Your task to perform on an android device: toggle priority inbox in the gmail app Image 0: 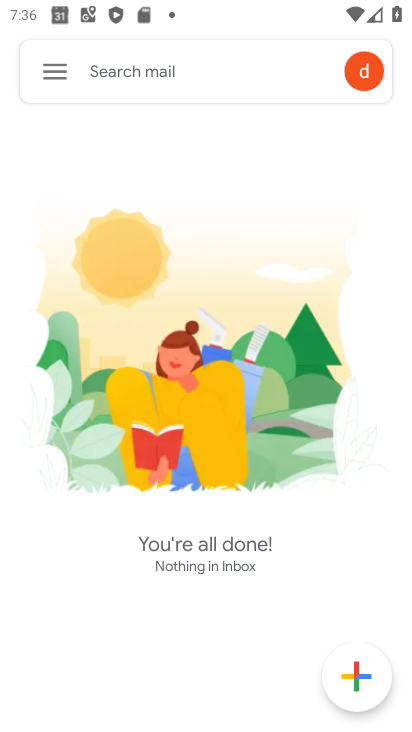
Step 0: click (50, 78)
Your task to perform on an android device: toggle priority inbox in the gmail app Image 1: 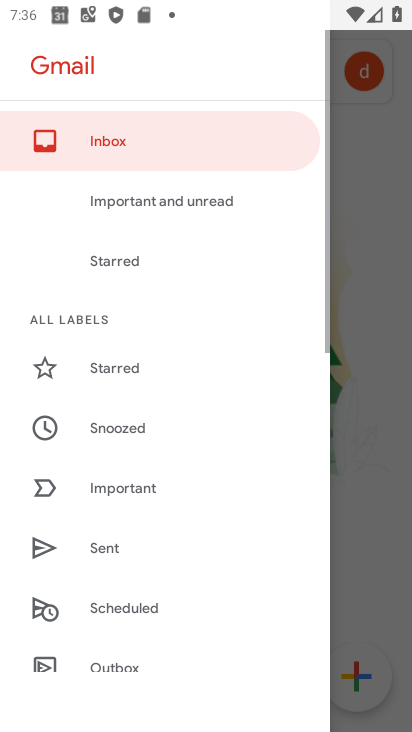
Step 1: drag from (149, 630) to (125, 253)
Your task to perform on an android device: toggle priority inbox in the gmail app Image 2: 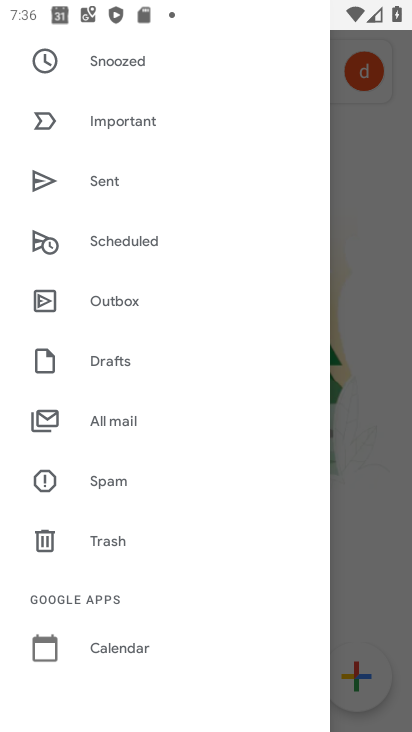
Step 2: drag from (118, 633) to (109, 317)
Your task to perform on an android device: toggle priority inbox in the gmail app Image 3: 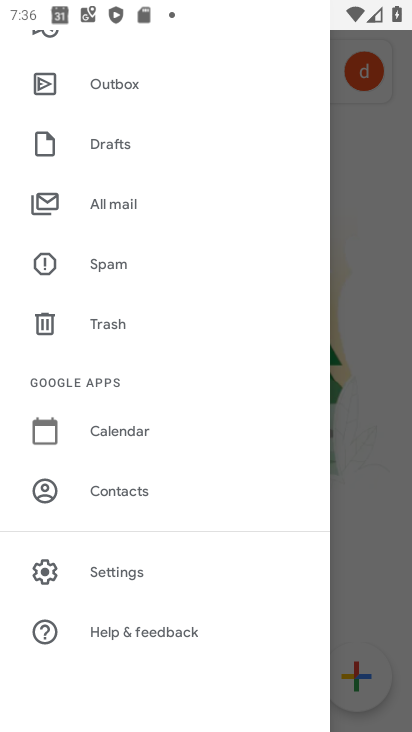
Step 3: click (118, 579)
Your task to perform on an android device: toggle priority inbox in the gmail app Image 4: 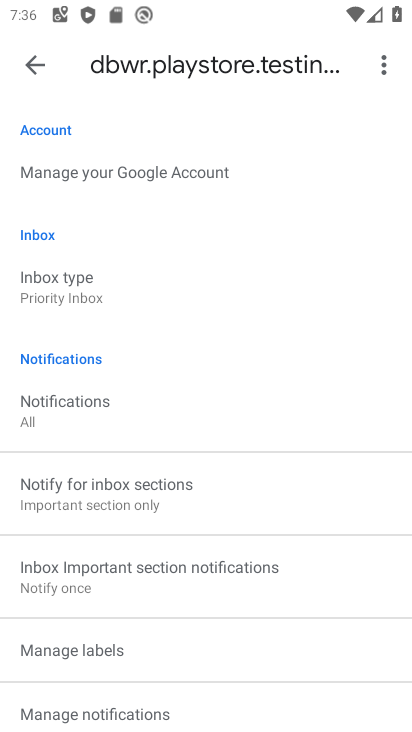
Step 4: click (86, 308)
Your task to perform on an android device: toggle priority inbox in the gmail app Image 5: 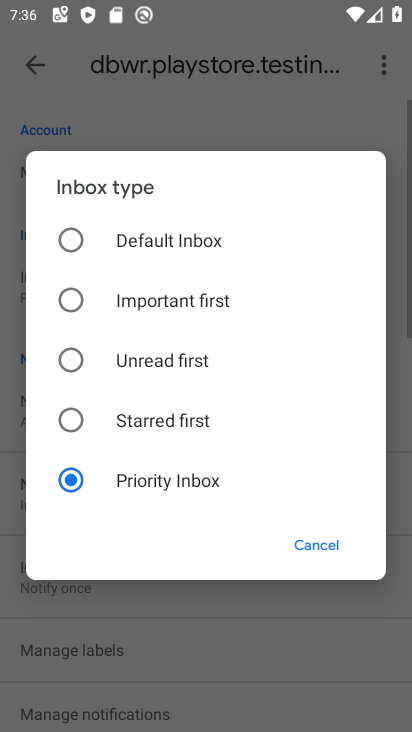
Step 5: click (72, 302)
Your task to perform on an android device: toggle priority inbox in the gmail app Image 6: 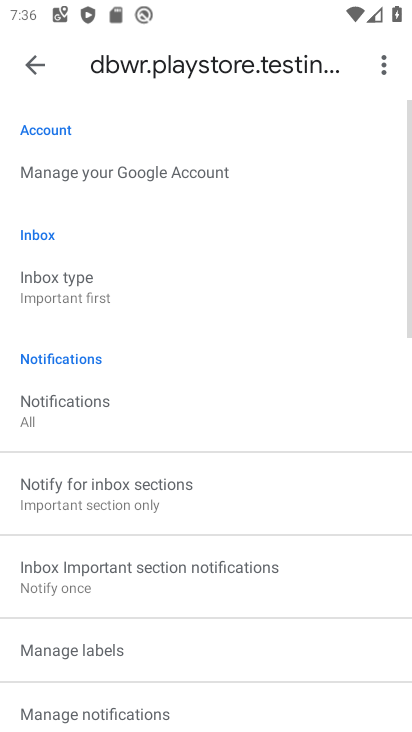
Step 6: task complete